Your task to perform on an android device: move an email to a new category in the gmail app Image 0: 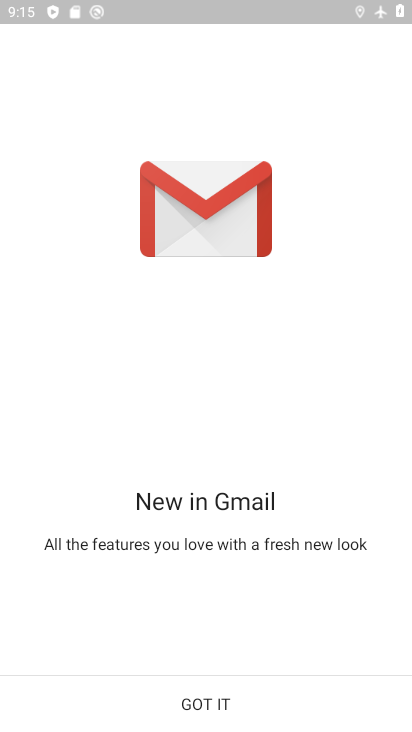
Step 0: press home button
Your task to perform on an android device: move an email to a new category in the gmail app Image 1: 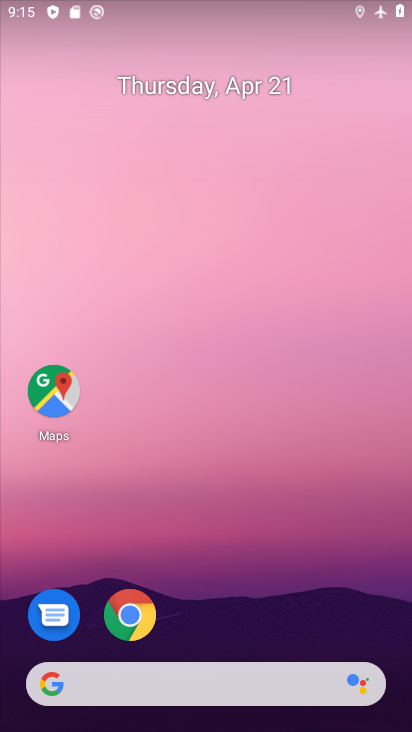
Step 1: drag from (197, 701) to (197, 184)
Your task to perform on an android device: move an email to a new category in the gmail app Image 2: 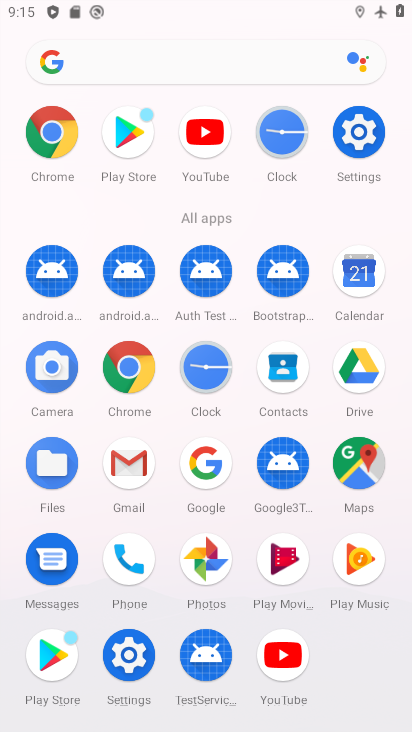
Step 2: click (132, 466)
Your task to perform on an android device: move an email to a new category in the gmail app Image 3: 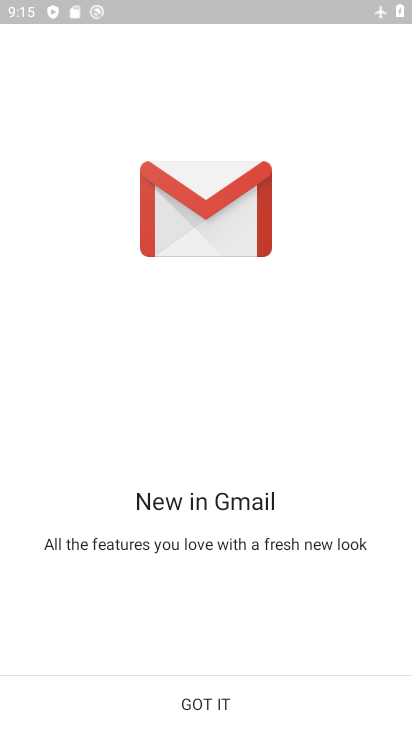
Step 3: click (205, 694)
Your task to perform on an android device: move an email to a new category in the gmail app Image 4: 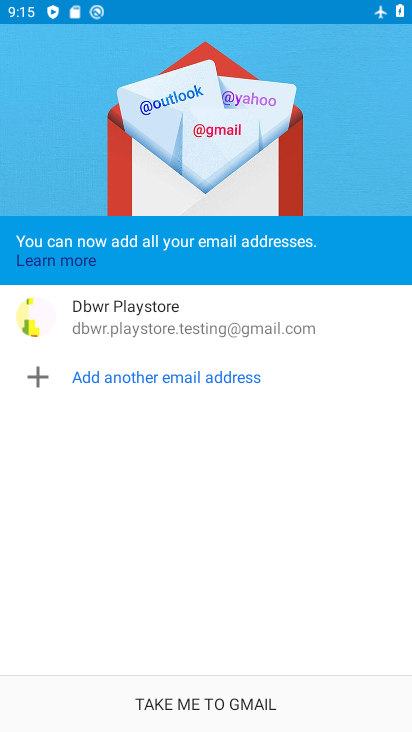
Step 4: click (215, 696)
Your task to perform on an android device: move an email to a new category in the gmail app Image 5: 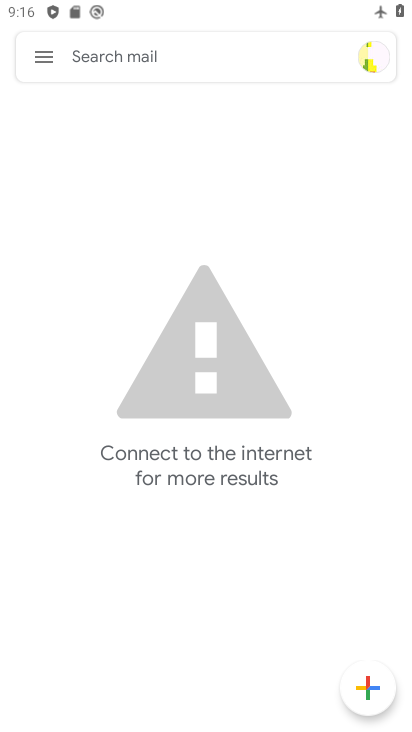
Step 5: task complete